Your task to perform on an android device: turn on the 24-hour format for clock Image 0: 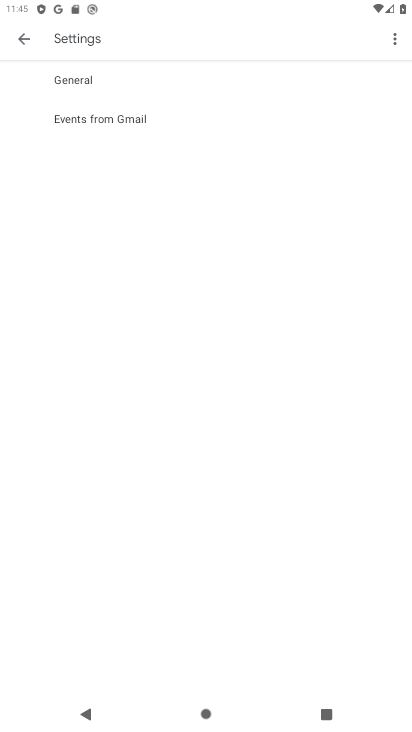
Step 0: press home button
Your task to perform on an android device: turn on the 24-hour format for clock Image 1: 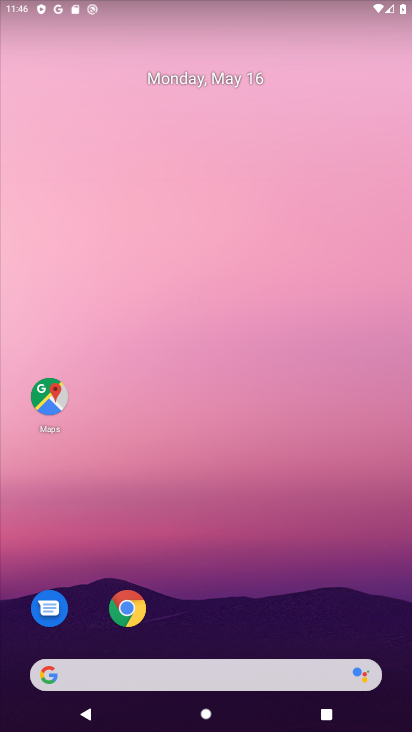
Step 1: drag from (285, 622) to (257, 19)
Your task to perform on an android device: turn on the 24-hour format for clock Image 2: 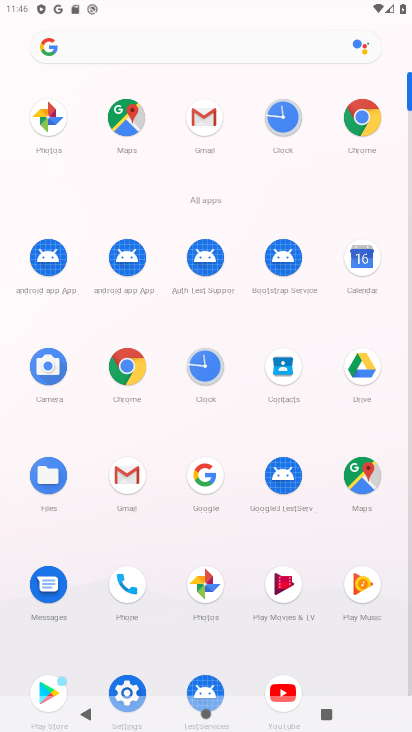
Step 2: click (284, 124)
Your task to perform on an android device: turn on the 24-hour format for clock Image 3: 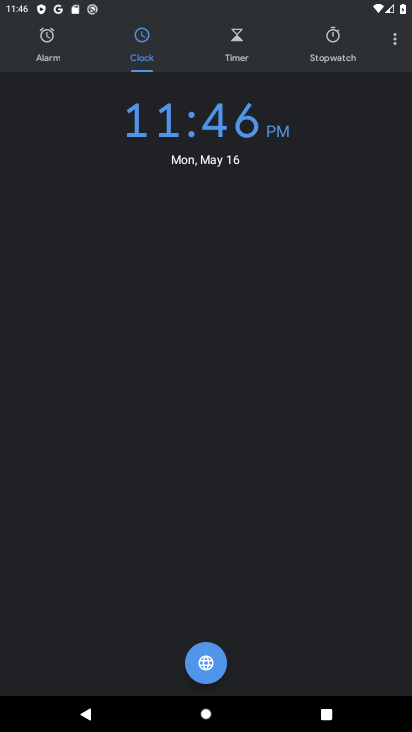
Step 3: click (394, 45)
Your task to perform on an android device: turn on the 24-hour format for clock Image 4: 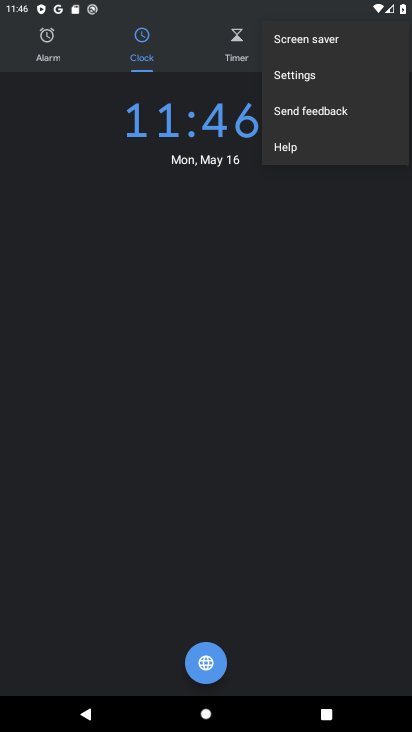
Step 4: click (348, 83)
Your task to perform on an android device: turn on the 24-hour format for clock Image 5: 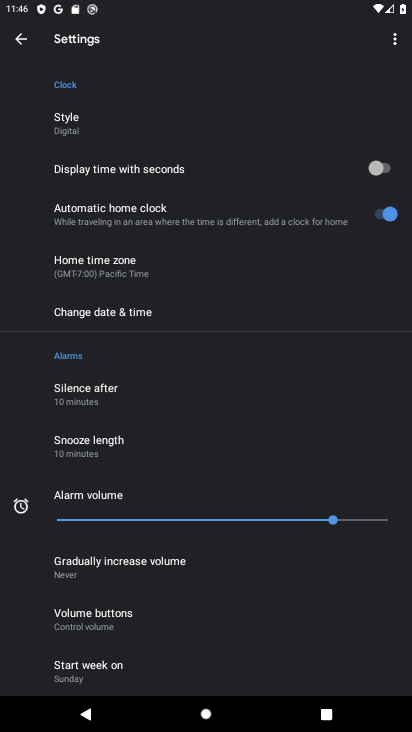
Step 5: click (242, 313)
Your task to perform on an android device: turn on the 24-hour format for clock Image 6: 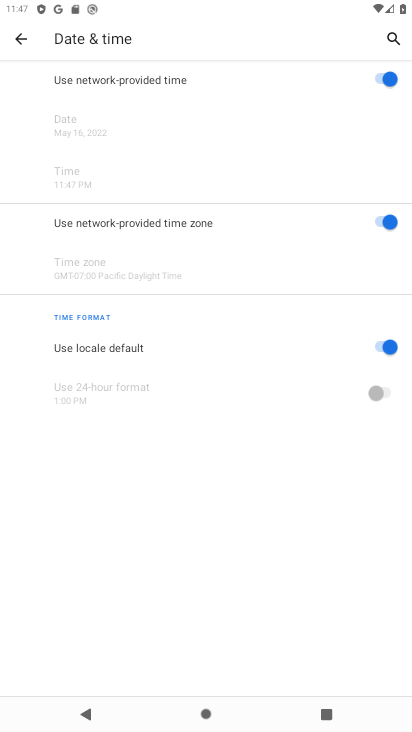
Step 6: click (391, 344)
Your task to perform on an android device: turn on the 24-hour format for clock Image 7: 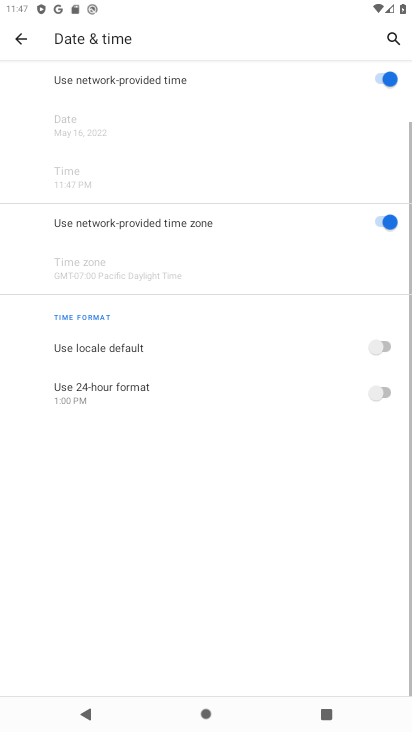
Step 7: click (384, 396)
Your task to perform on an android device: turn on the 24-hour format for clock Image 8: 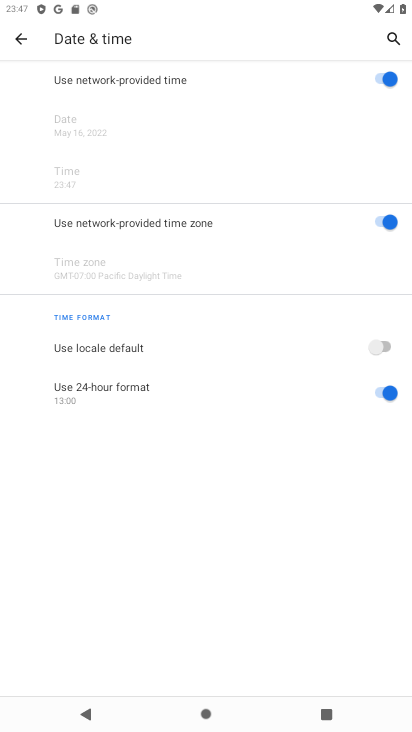
Step 8: task complete